Your task to perform on an android device: set the timer Image 0: 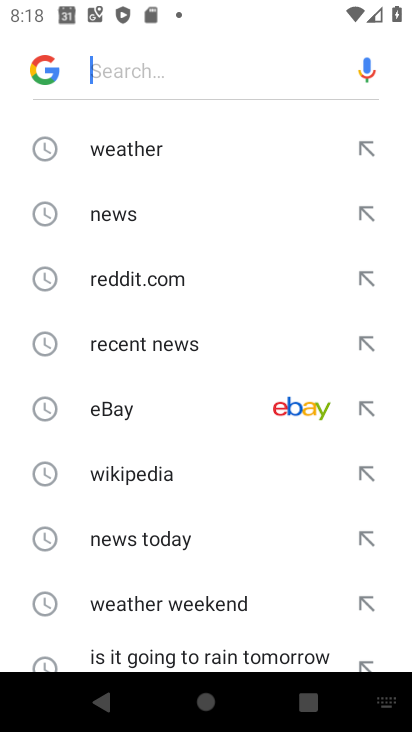
Step 0: press back button
Your task to perform on an android device: set the timer Image 1: 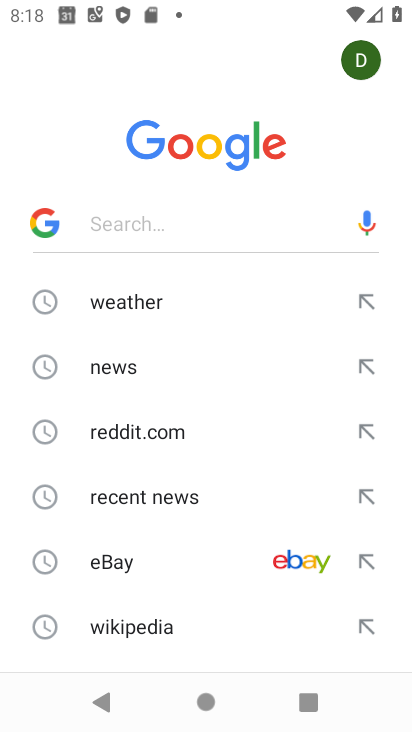
Step 1: press back button
Your task to perform on an android device: set the timer Image 2: 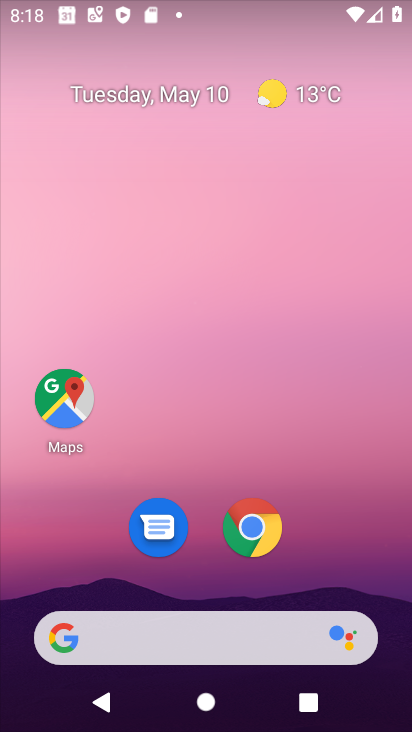
Step 2: drag from (81, 509) to (268, 130)
Your task to perform on an android device: set the timer Image 3: 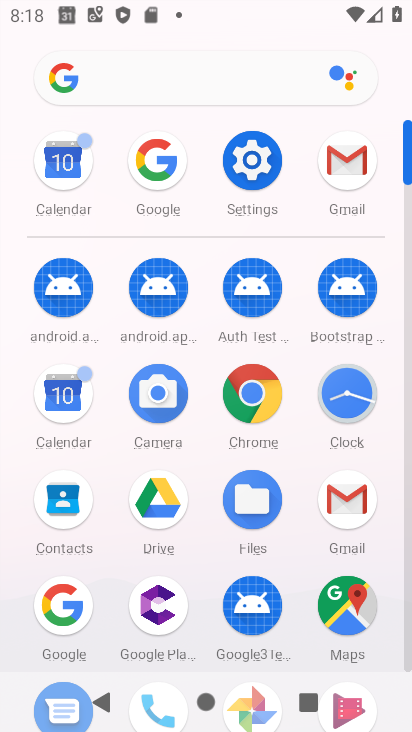
Step 3: click (346, 401)
Your task to perform on an android device: set the timer Image 4: 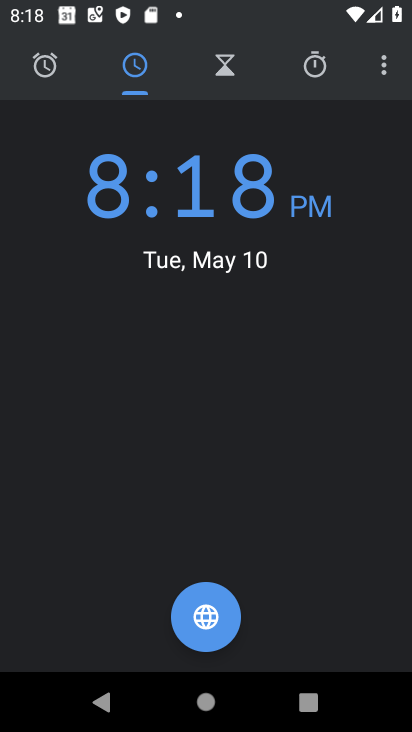
Step 4: click (304, 63)
Your task to perform on an android device: set the timer Image 5: 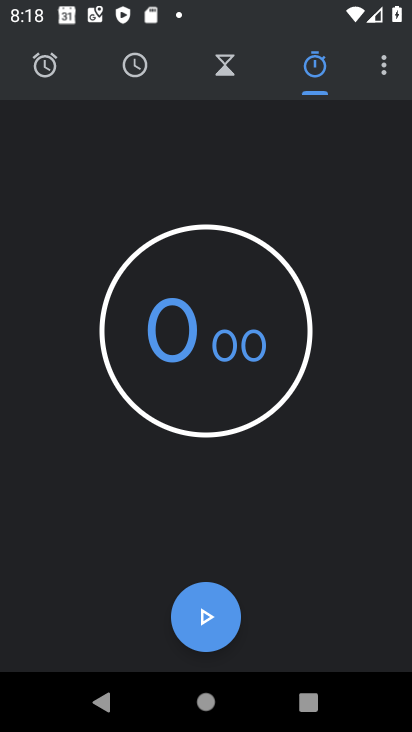
Step 5: click (215, 616)
Your task to perform on an android device: set the timer Image 6: 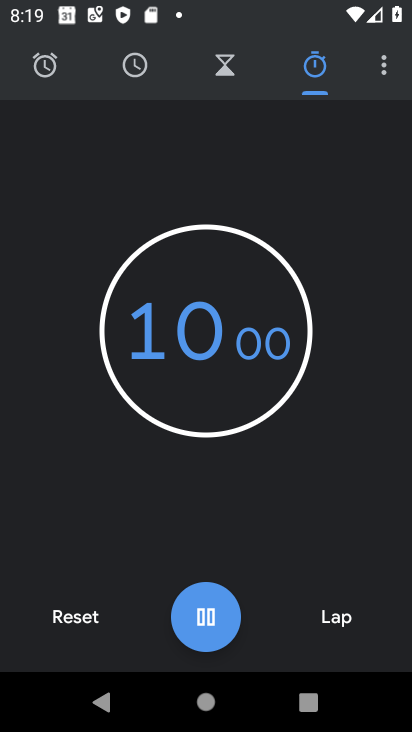
Step 6: task complete